Your task to perform on an android device: Show me recent news Image 0: 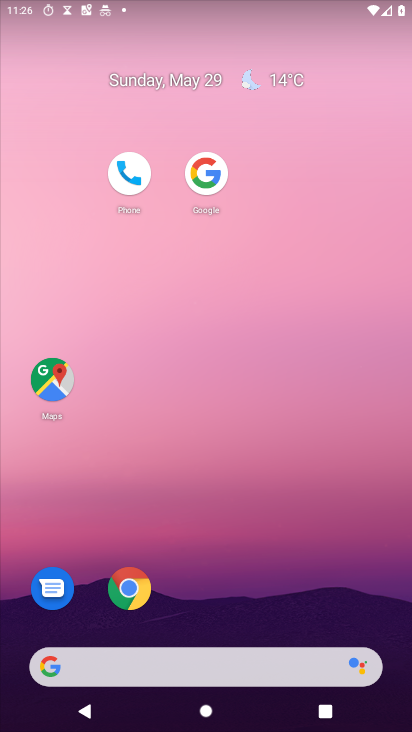
Step 0: drag from (234, 630) to (214, 177)
Your task to perform on an android device: Show me recent news Image 1: 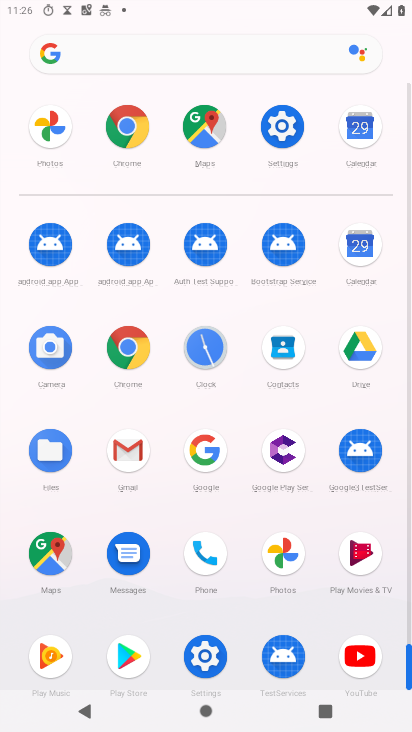
Step 1: press back button
Your task to perform on an android device: Show me recent news Image 2: 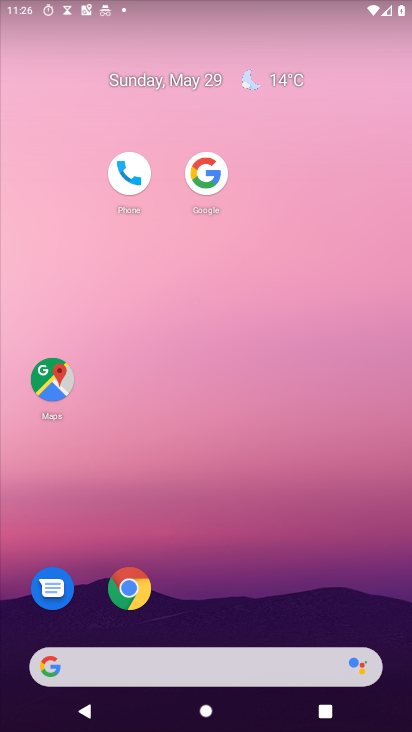
Step 2: drag from (12, 252) to (382, 428)
Your task to perform on an android device: Show me recent news Image 3: 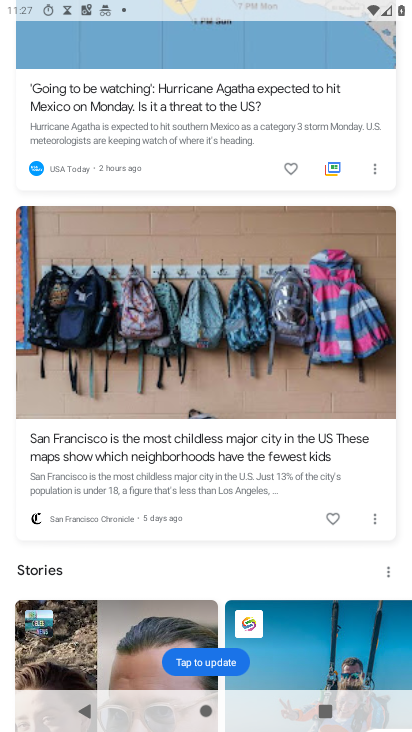
Step 3: press back button
Your task to perform on an android device: Show me recent news Image 4: 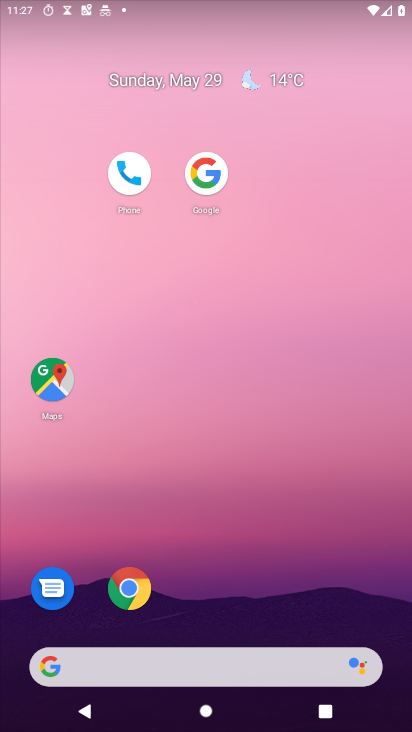
Step 4: drag from (17, 266) to (410, 376)
Your task to perform on an android device: Show me recent news Image 5: 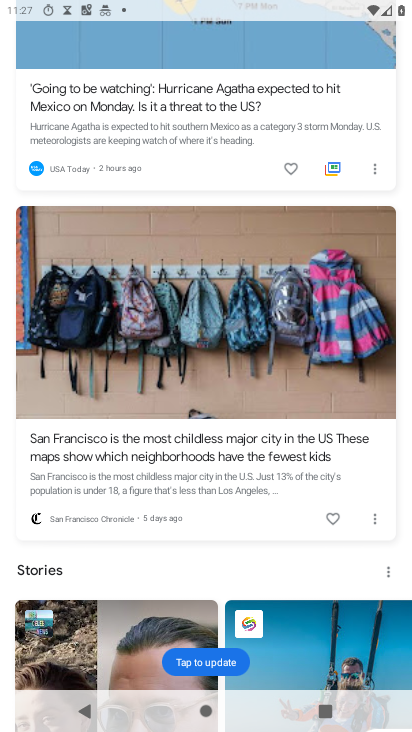
Step 5: drag from (216, 490) to (161, 115)
Your task to perform on an android device: Show me recent news Image 6: 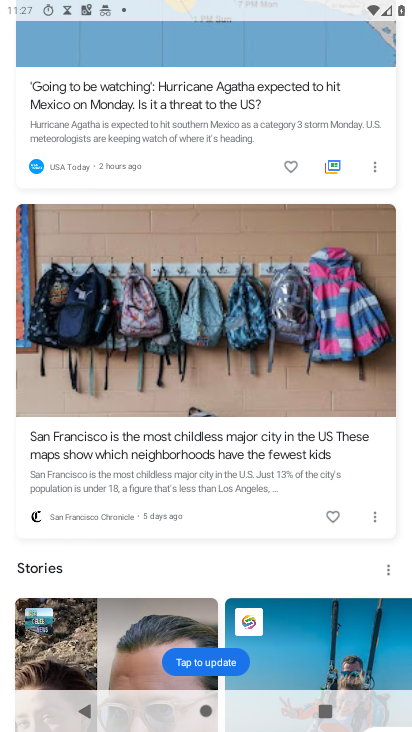
Step 6: click (198, 168)
Your task to perform on an android device: Show me recent news Image 7: 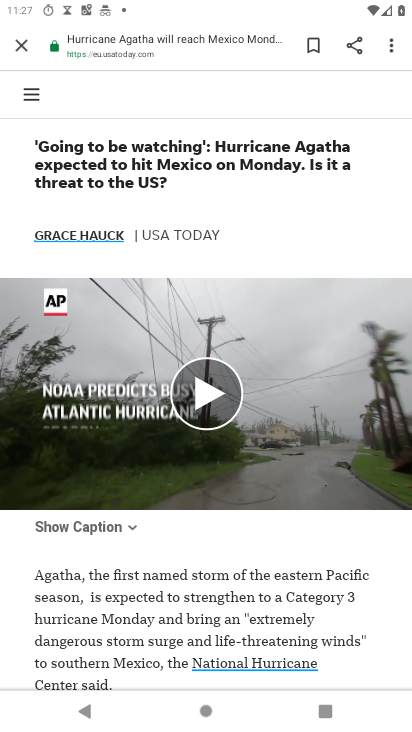
Step 7: task complete